Your task to perform on an android device: Go to privacy settings Image 0: 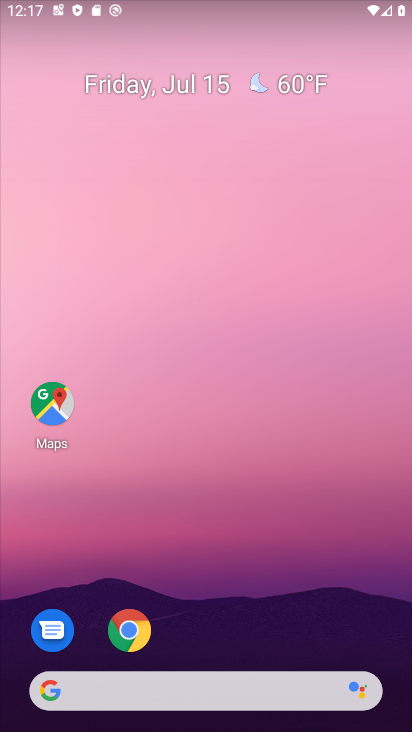
Step 0: drag from (20, 687) to (338, 40)
Your task to perform on an android device: Go to privacy settings Image 1: 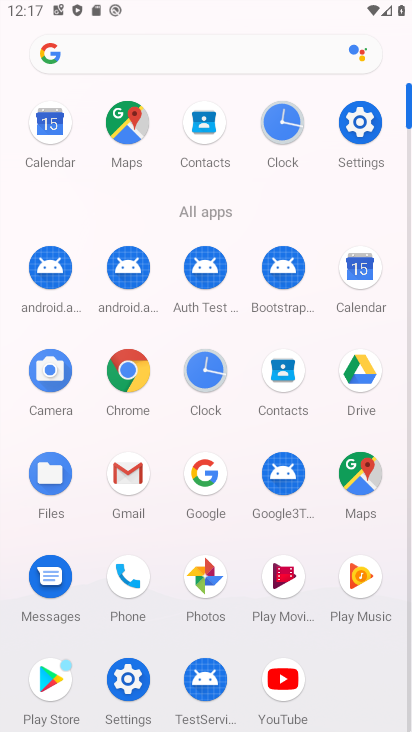
Step 1: click (116, 689)
Your task to perform on an android device: Go to privacy settings Image 2: 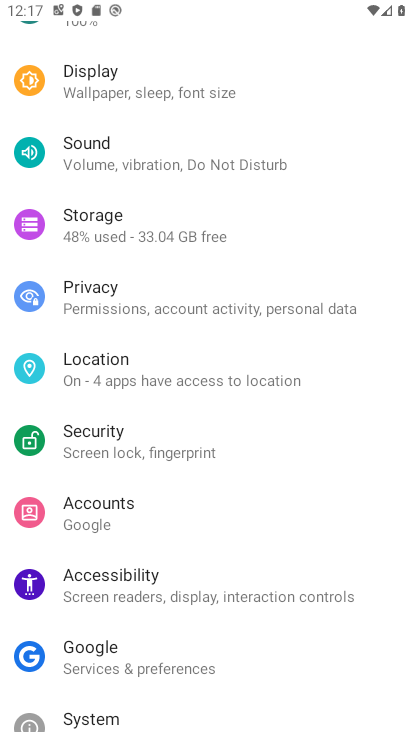
Step 2: click (109, 290)
Your task to perform on an android device: Go to privacy settings Image 3: 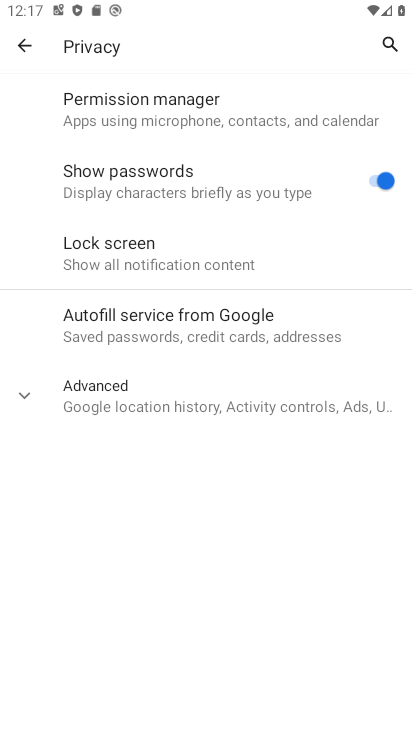
Step 3: task complete